Your task to perform on an android device: uninstall "Adobe Acrobat Reader: Edit PDF" Image 0: 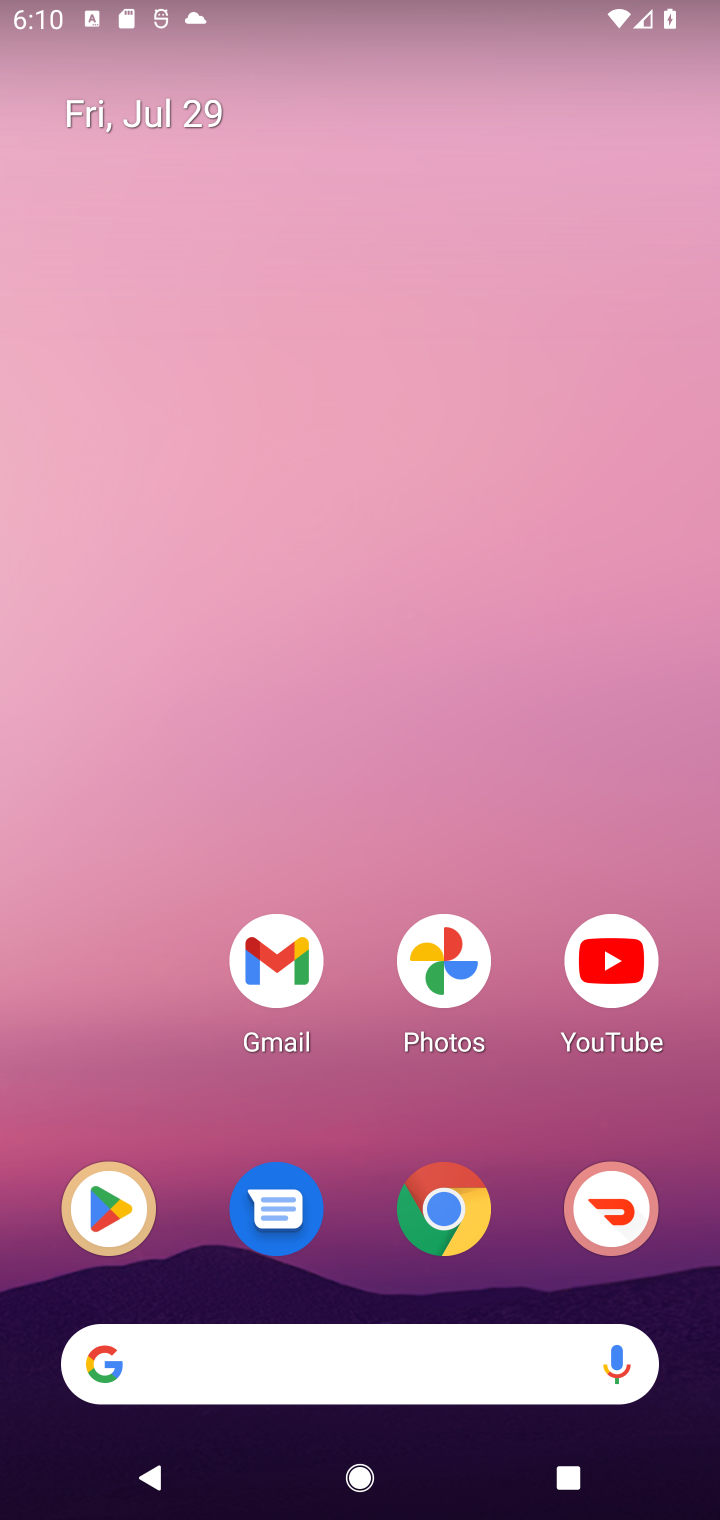
Step 0: click (119, 1213)
Your task to perform on an android device: uninstall "Adobe Acrobat Reader: Edit PDF" Image 1: 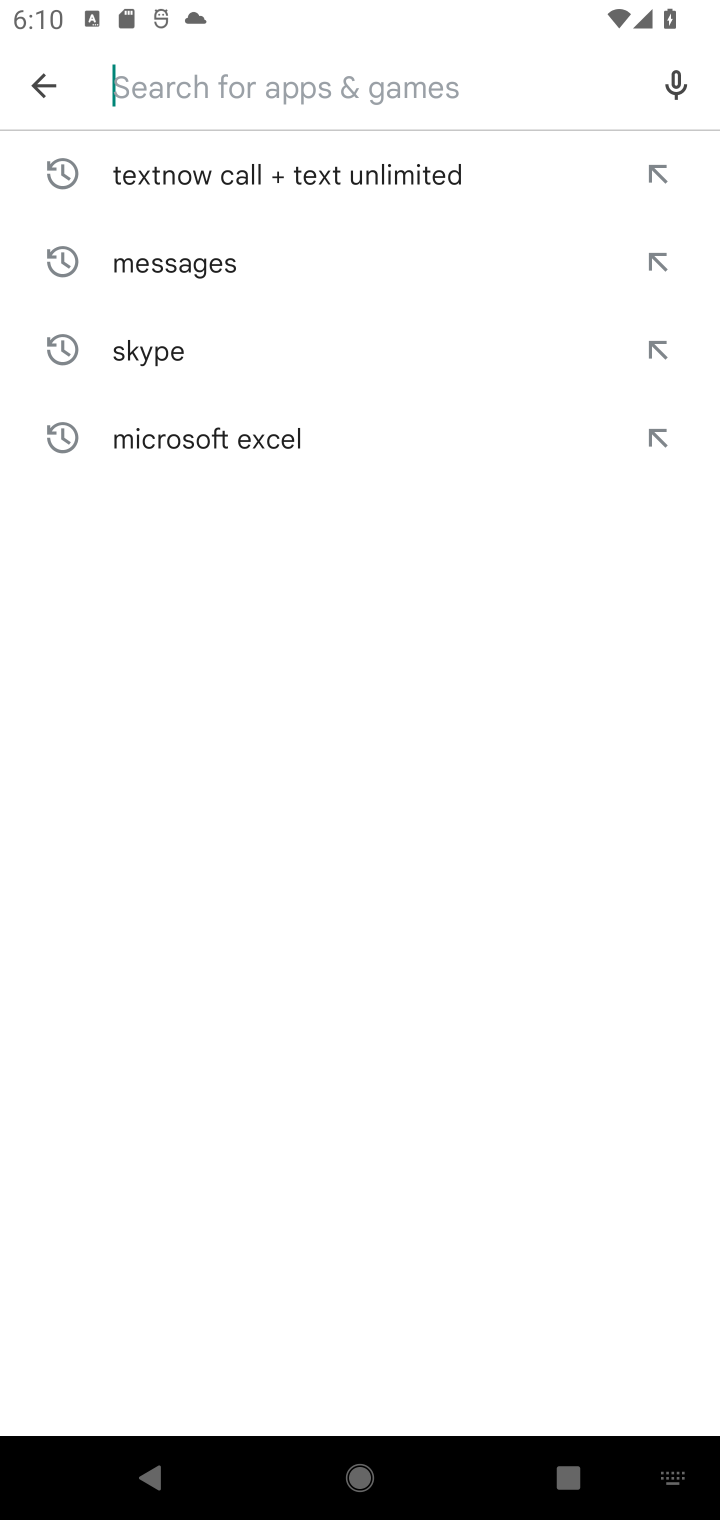
Step 1: click (289, 88)
Your task to perform on an android device: uninstall "Adobe Acrobat Reader: Edit PDF" Image 2: 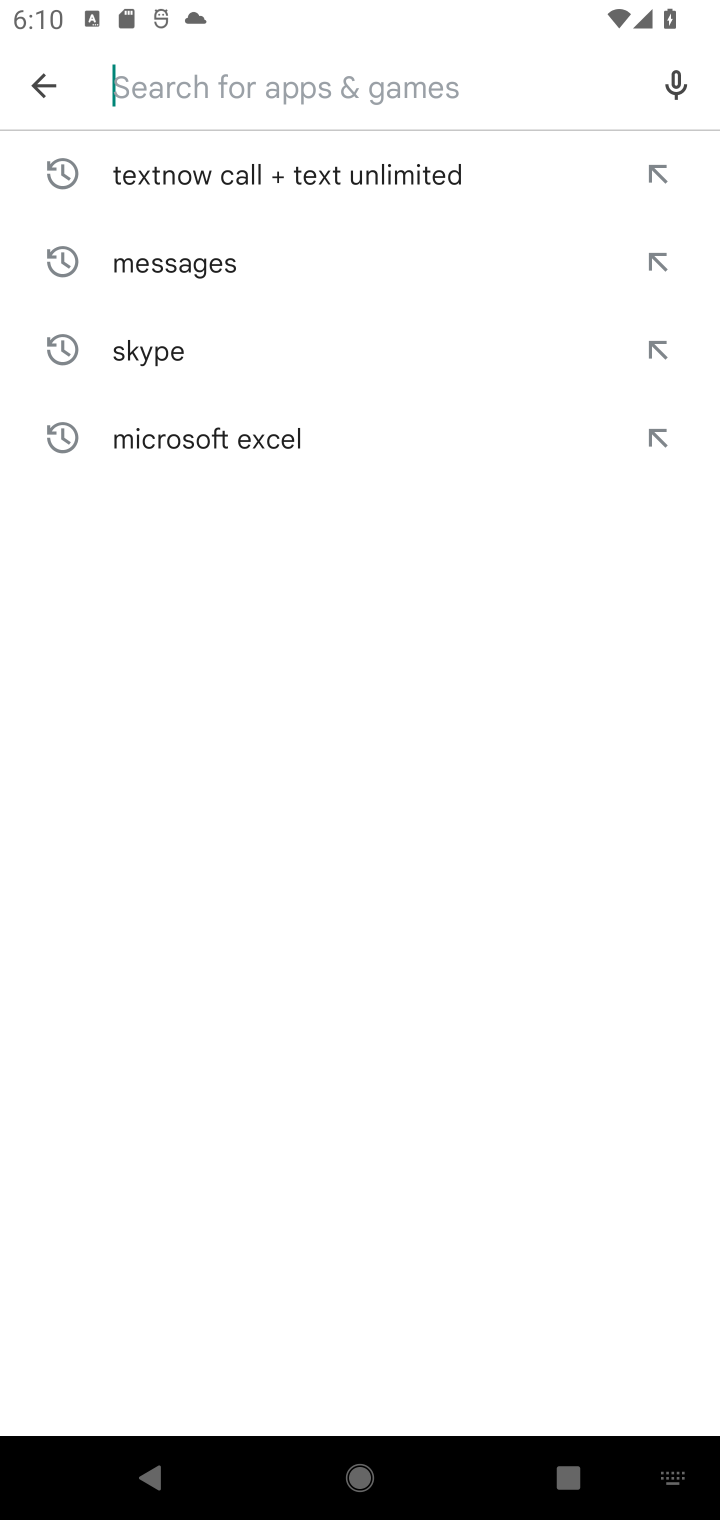
Step 2: type "Adobe Acrobat Reader: Edit PDF"
Your task to perform on an android device: uninstall "Adobe Acrobat Reader: Edit PDF" Image 3: 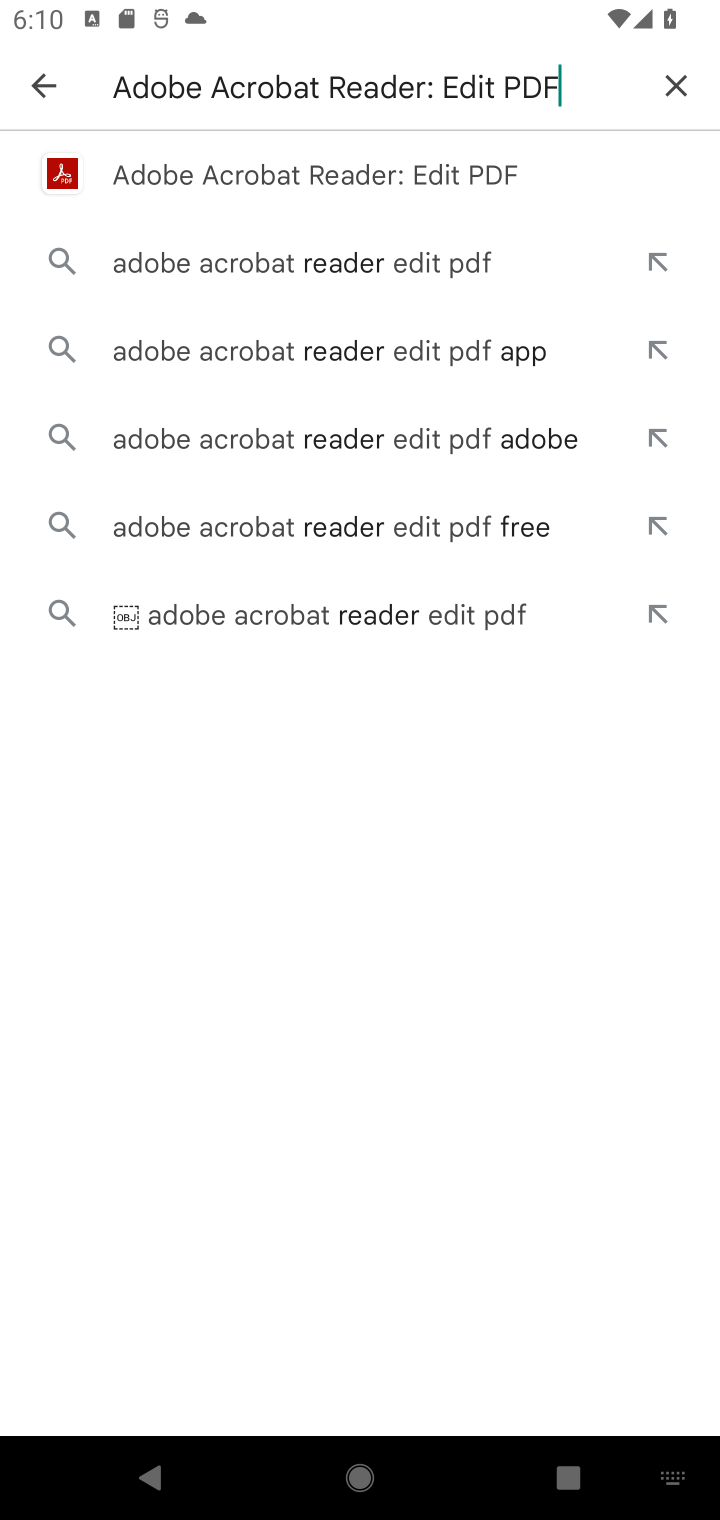
Step 3: click (148, 174)
Your task to perform on an android device: uninstall "Adobe Acrobat Reader: Edit PDF" Image 4: 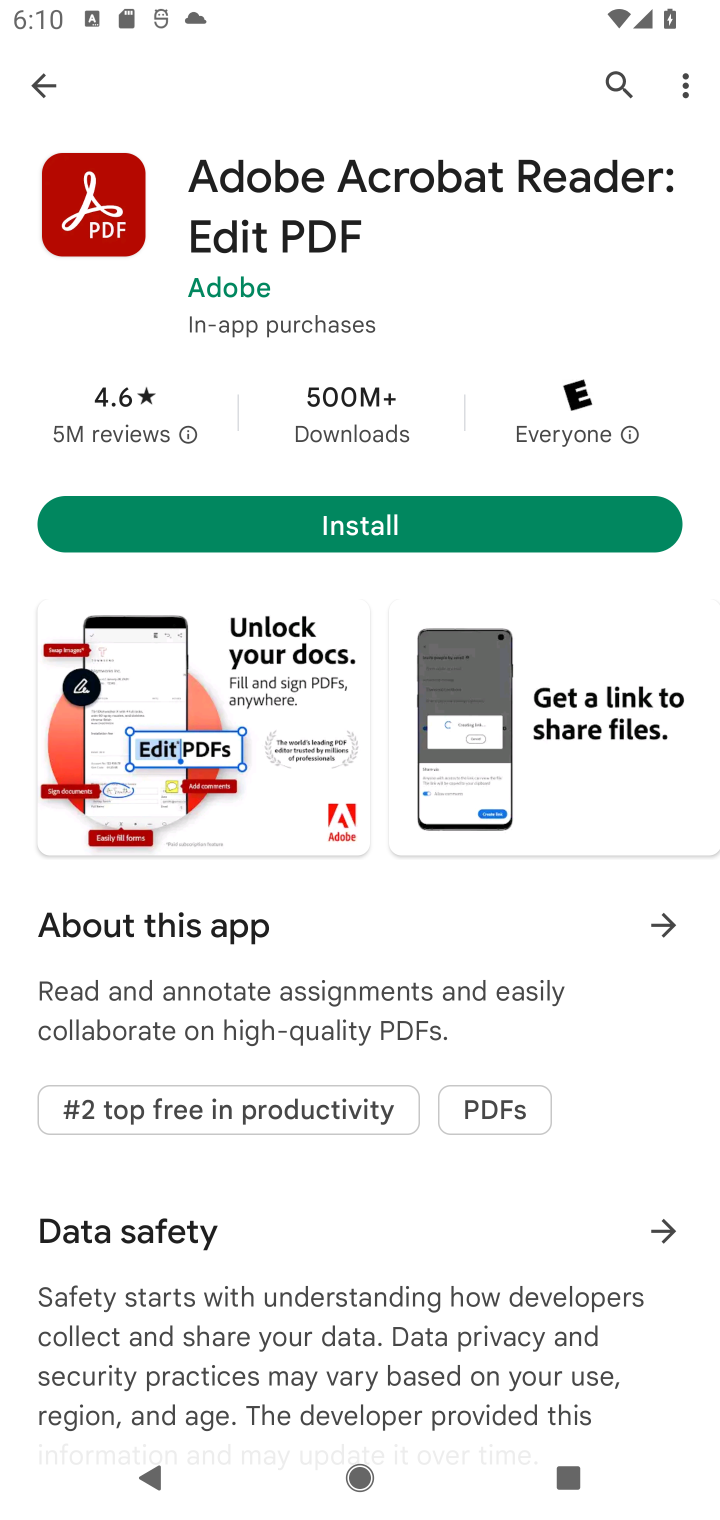
Step 4: task complete